Your task to perform on an android device: See recent photos Image 0: 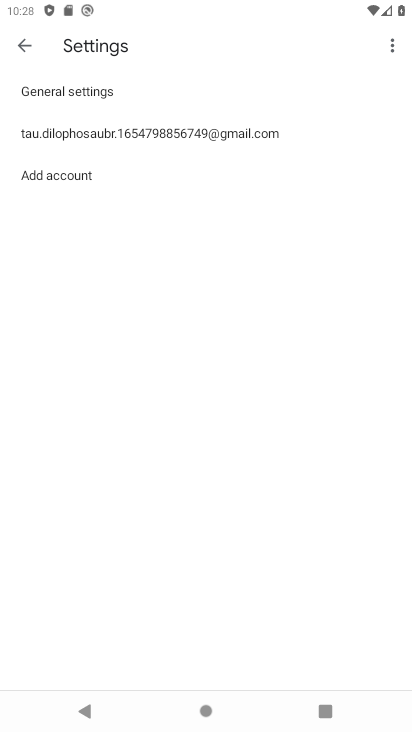
Step 0: press home button
Your task to perform on an android device: See recent photos Image 1: 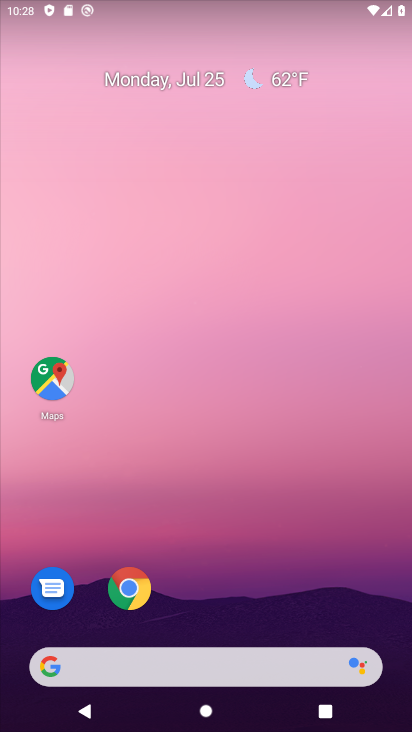
Step 1: drag from (29, 495) to (179, 140)
Your task to perform on an android device: See recent photos Image 2: 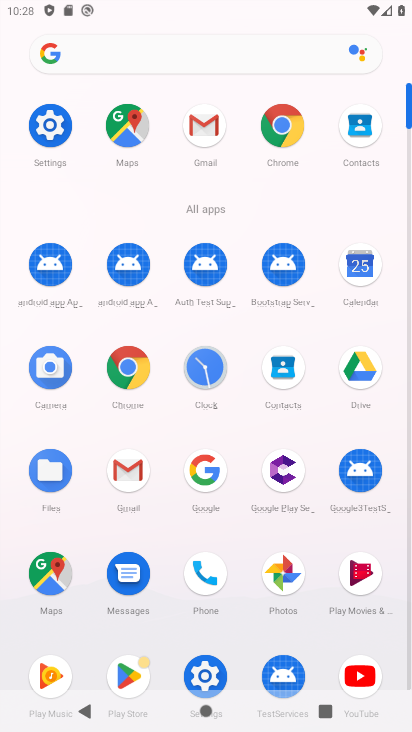
Step 2: click (275, 576)
Your task to perform on an android device: See recent photos Image 3: 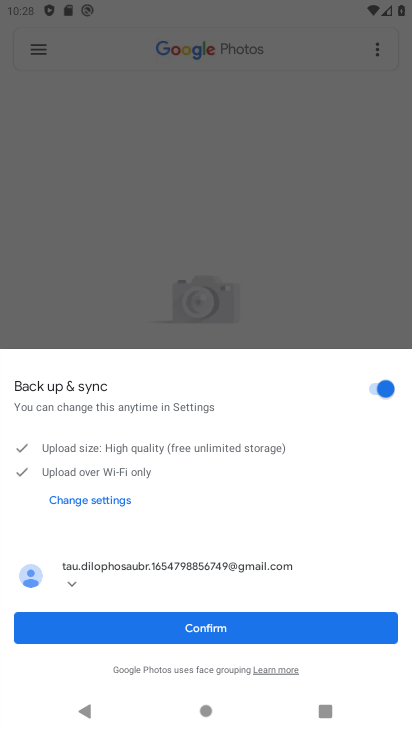
Step 3: click (173, 623)
Your task to perform on an android device: See recent photos Image 4: 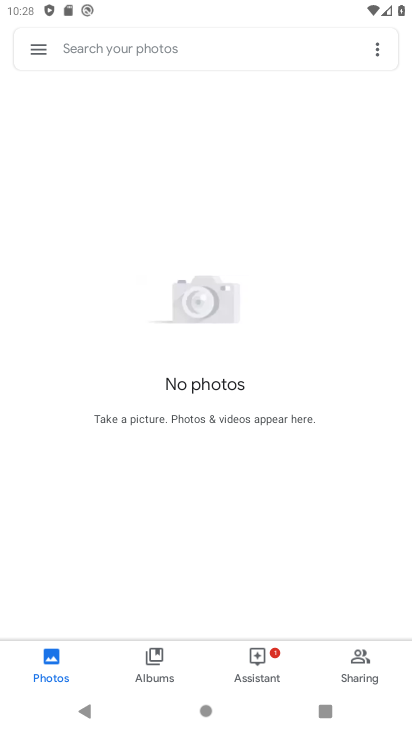
Step 4: click (161, 666)
Your task to perform on an android device: See recent photos Image 5: 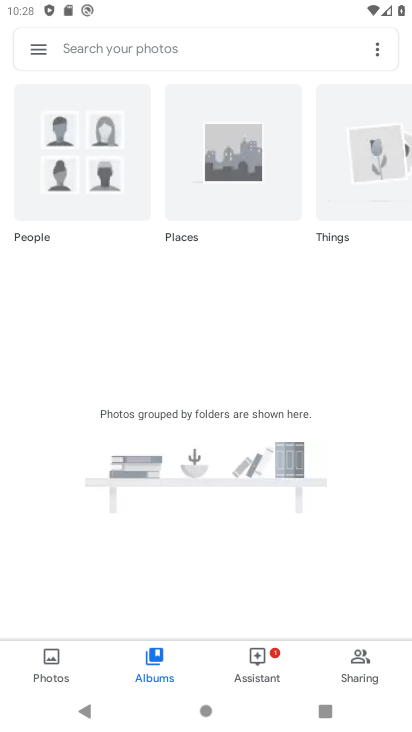
Step 5: task complete